Your task to perform on an android device: turn smart compose on in the gmail app Image 0: 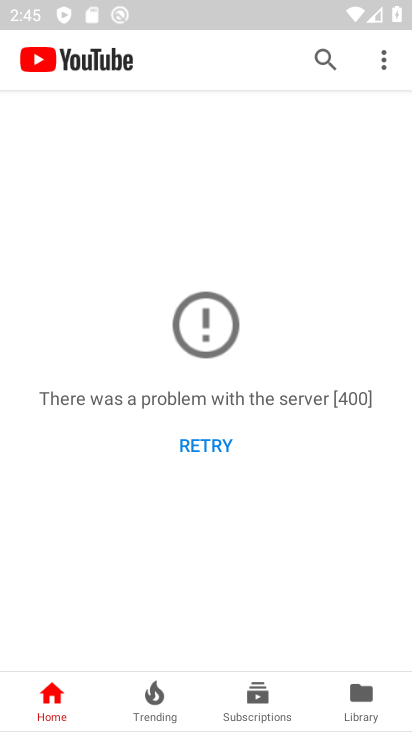
Step 0: press home button
Your task to perform on an android device: turn smart compose on in the gmail app Image 1: 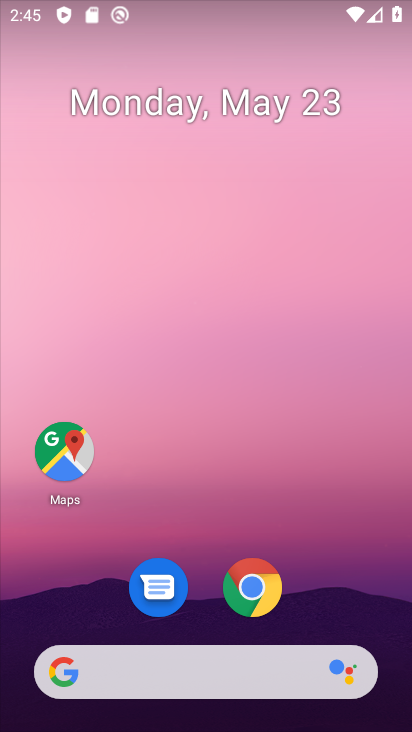
Step 1: drag from (237, 630) to (231, 262)
Your task to perform on an android device: turn smart compose on in the gmail app Image 2: 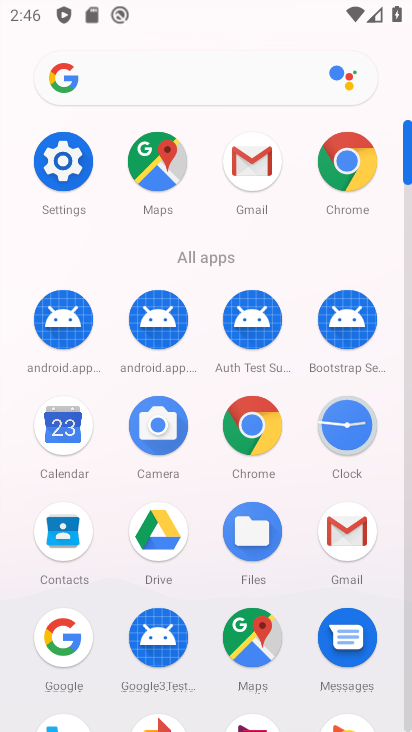
Step 2: click (257, 197)
Your task to perform on an android device: turn smart compose on in the gmail app Image 3: 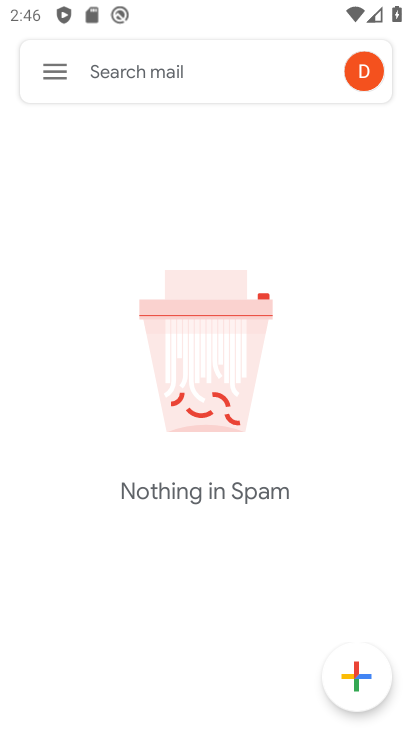
Step 3: click (57, 75)
Your task to perform on an android device: turn smart compose on in the gmail app Image 4: 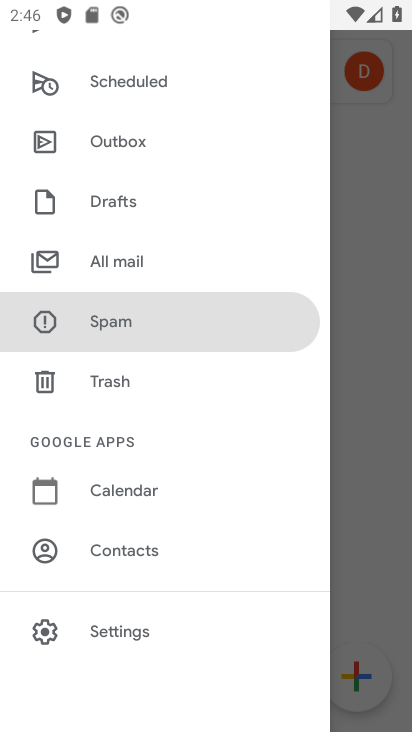
Step 4: click (127, 640)
Your task to perform on an android device: turn smart compose on in the gmail app Image 5: 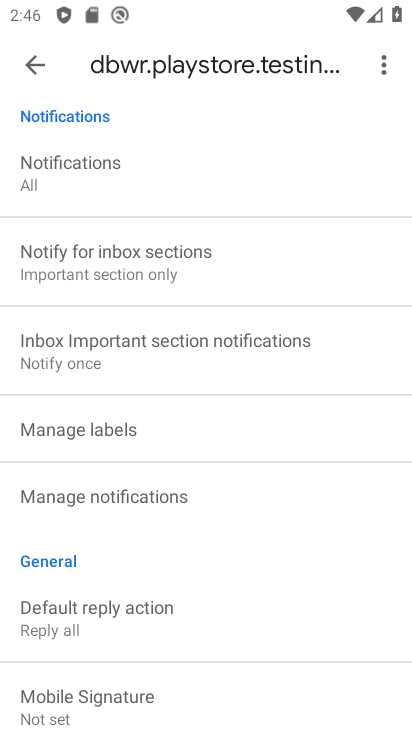
Step 5: task complete